Your task to perform on an android device: change the clock display to digital Image 0: 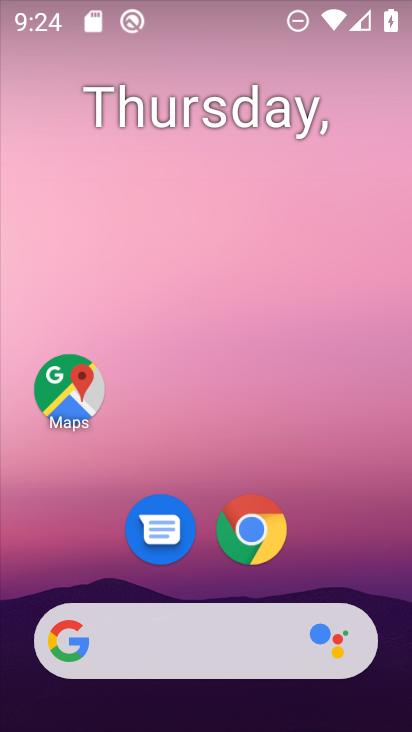
Step 0: drag from (211, 730) to (220, 114)
Your task to perform on an android device: change the clock display to digital Image 1: 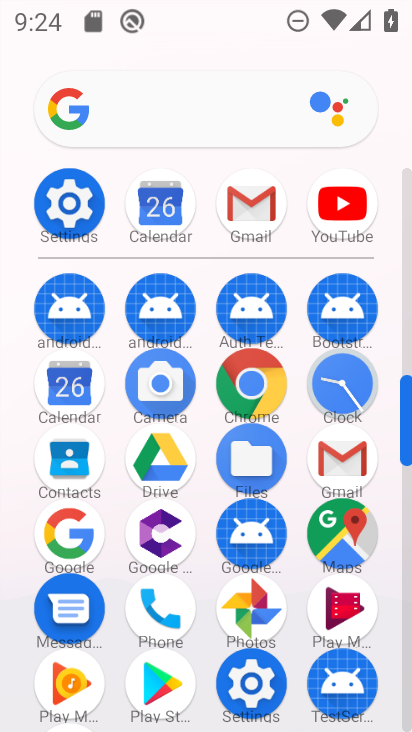
Step 1: click (339, 390)
Your task to perform on an android device: change the clock display to digital Image 2: 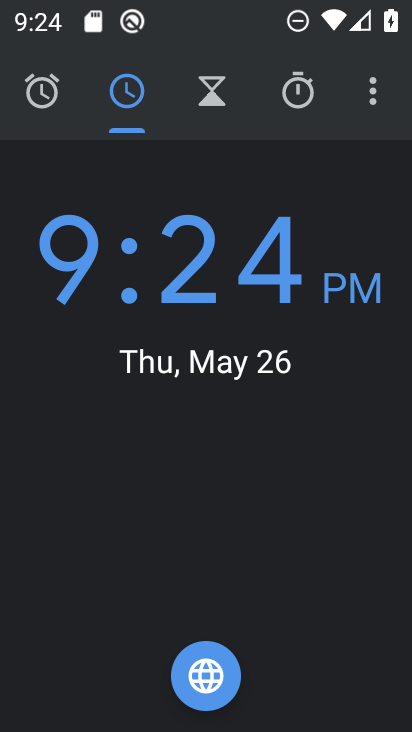
Step 2: click (375, 101)
Your task to perform on an android device: change the clock display to digital Image 3: 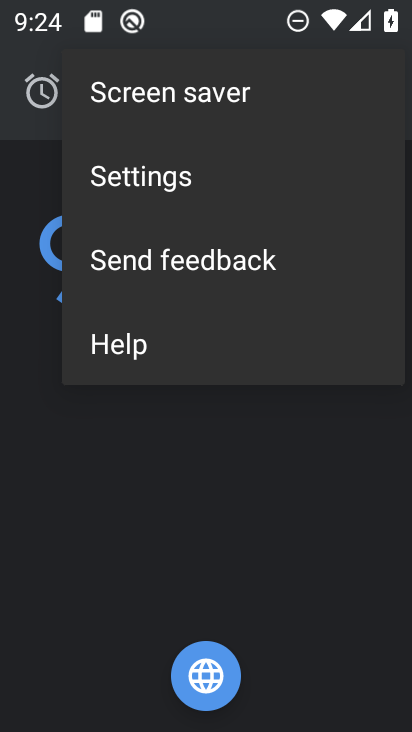
Step 3: click (175, 172)
Your task to perform on an android device: change the clock display to digital Image 4: 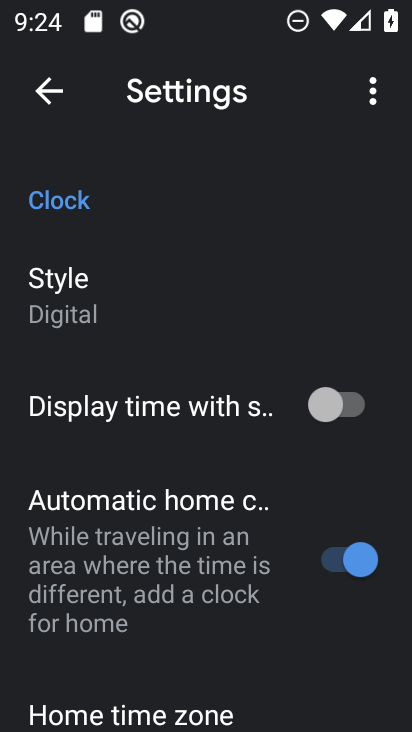
Step 4: task complete